Your task to perform on an android device: Go to accessibility settings Image 0: 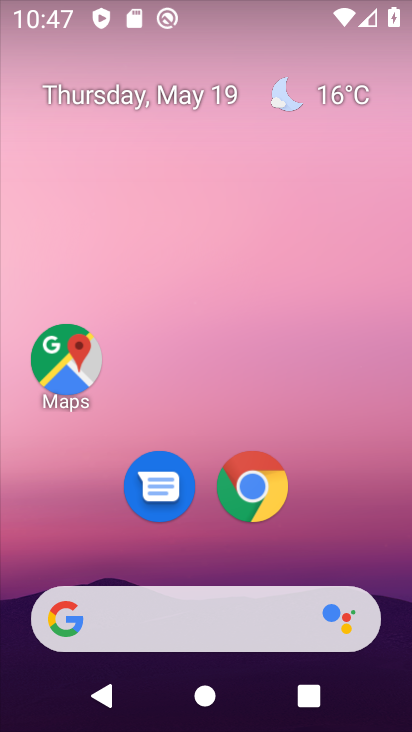
Step 0: drag from (379, 545) to (347, 170)
Your task to perform on an android device: Go to accessibility settings Image 1: 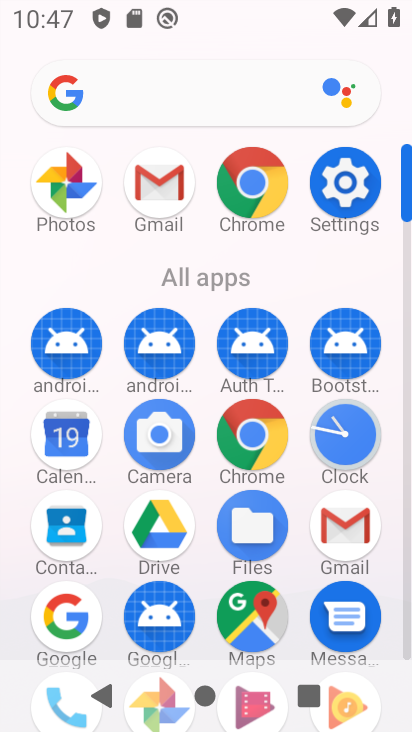
Step 1: click (353, 216)
Your task to perform on an android device: Go to accessibility settings Image 2: 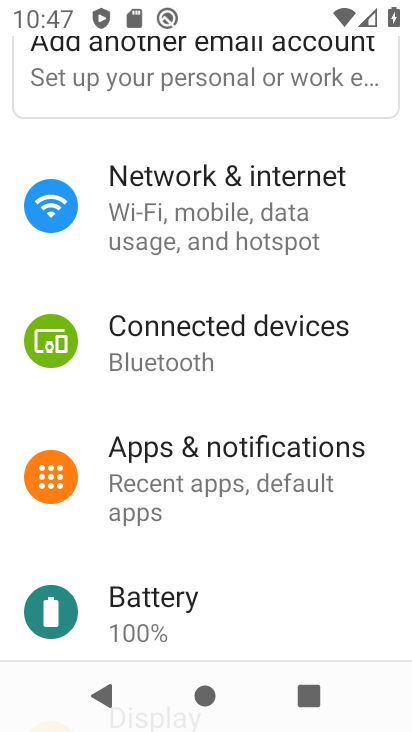
Step 2: drag from (173, 512) to (334, 34)
Your task to perform on an android device: Go to accessibility settings Image 3: 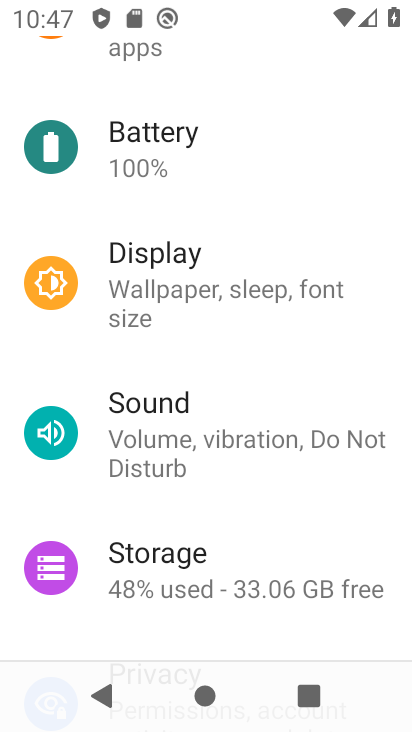
Step 3: drag from (231, 540) to (253, 292)
Your task to perform on an android device: Go to accessibility settings Image 4: 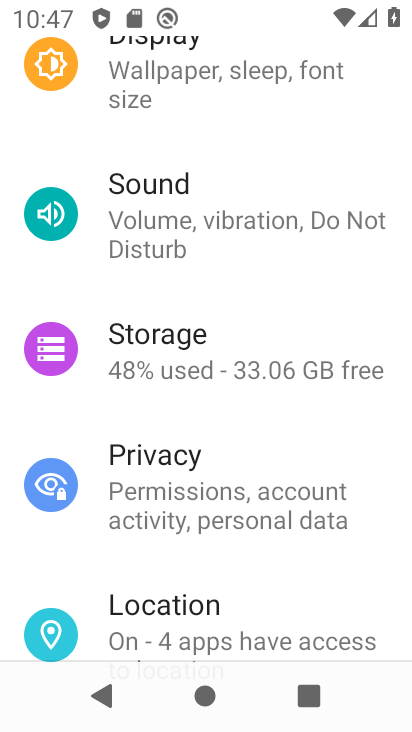
Step 4: drag from (168, 607) to (234, 240)
Your task to perform on an android device: Go to accessibility settings Image 5: 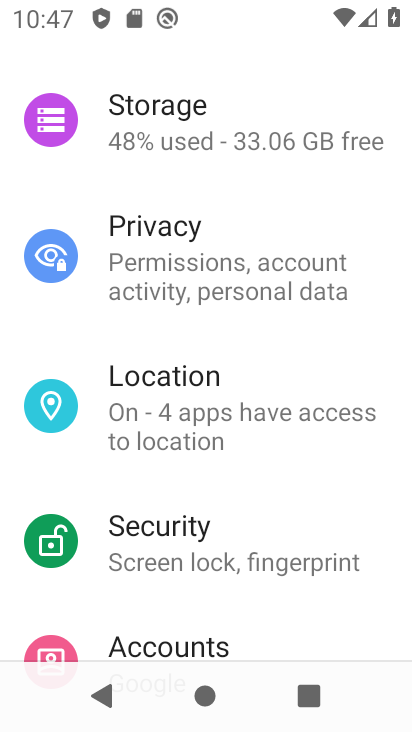
Step 5: drag from (150, 638) to (188, 310)
Your task to perform on an android device: Go to accessibility settings Image 6: 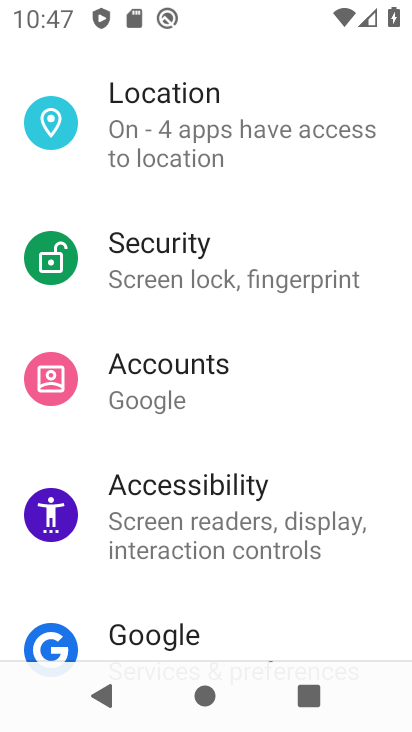
Step 6: click (199, 493)
Your task to perform on an android device: Go to accessibility settings Image 7: 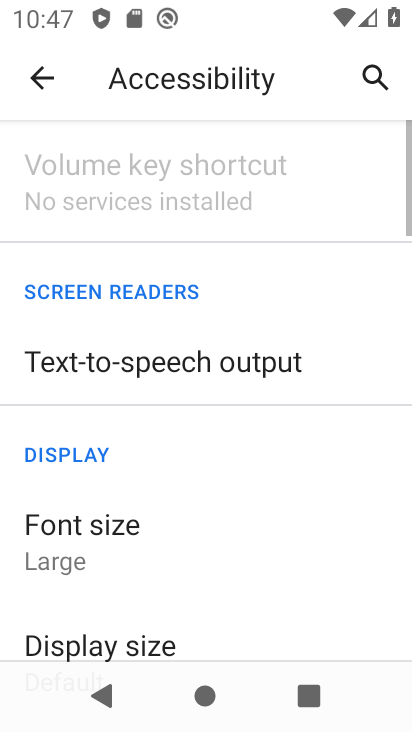
Step 7: task complete